Your task to perform on an android device: turn on priority inbox in the gmail app Image 0: 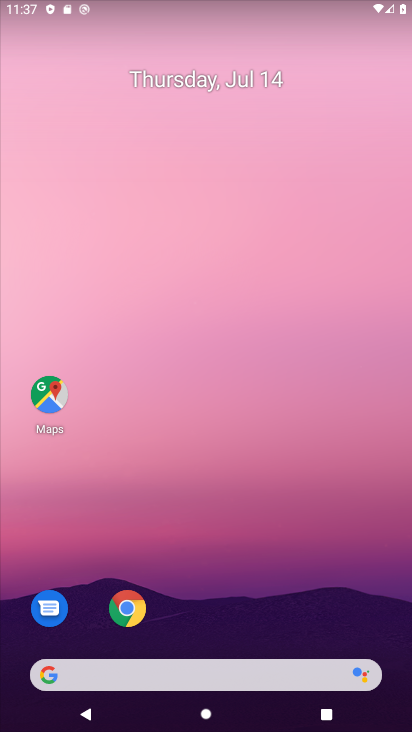
Step 0: drag from (205, 420) to (236, 112)
Your task to perform on an android device: turn on priority inbox in the gmail app Image 1: 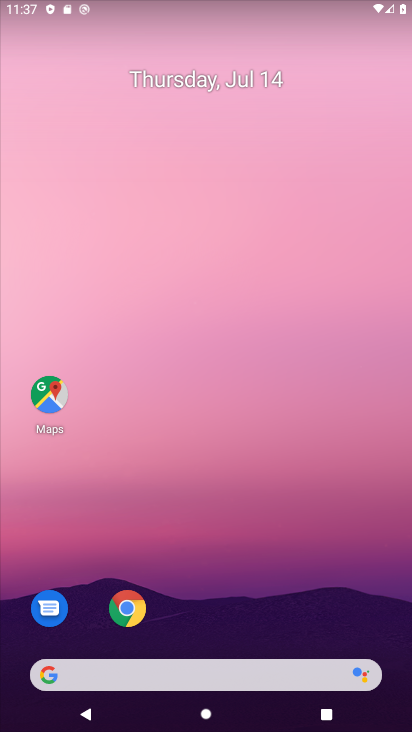
Step 1: drag from (163, 670) to (157, 29)
Your task to perform on an android device: turn on priority inbox in the gmail app Image 2: 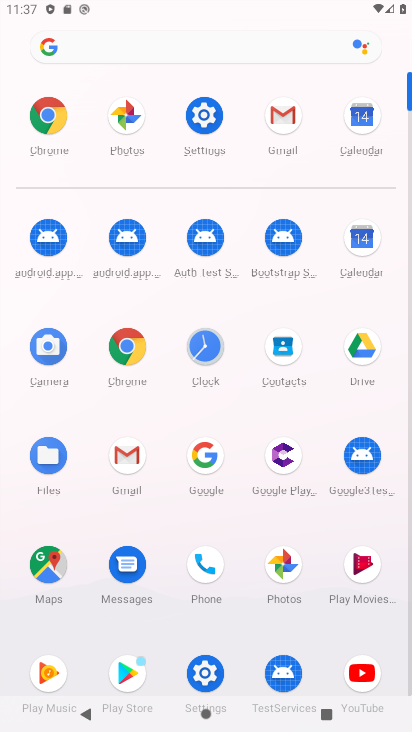
Step 2: click (130, 458)
Your task to perform on an android device: turn on priority inbox in the gmail app Image 3: 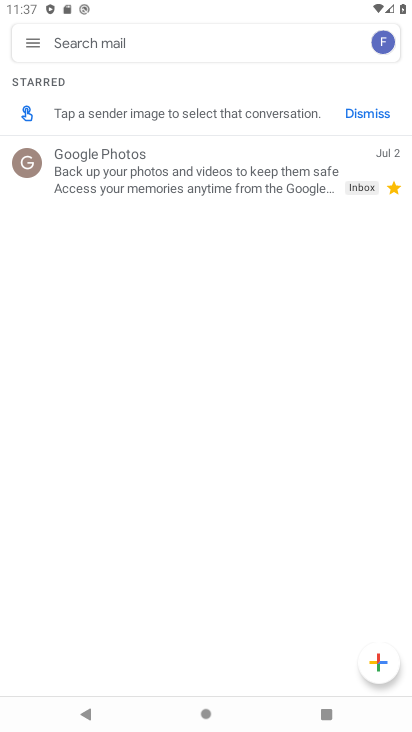
Step 3: click (24, 31)
Your task to perform on an android device: turn on priority inbox in the gmail app Image 4: 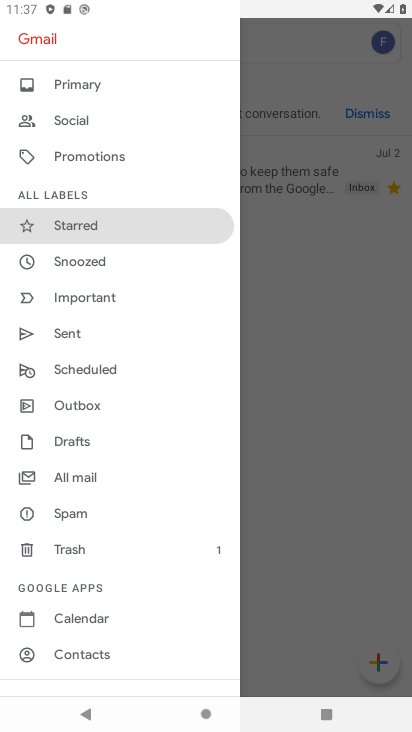
Step 4: drag from (106, 625) to (102, 369)
Your task to perform on an android device: turn on priority inbox in the gmail app Image 5: 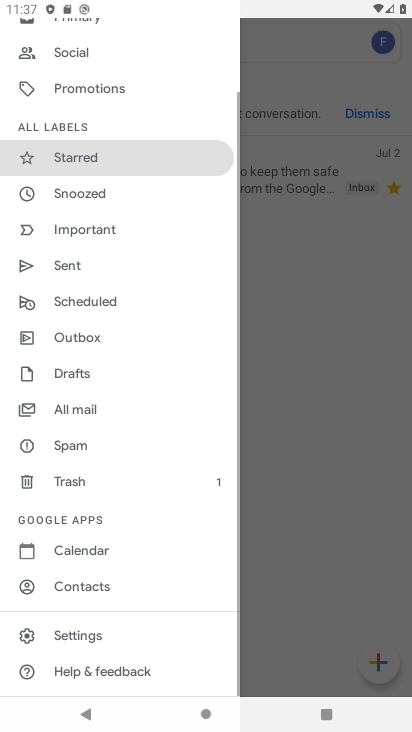
Step 5: click (99, 638)
Your task to perform on an android device: turn on priority inbox in the gmail app Image 6: 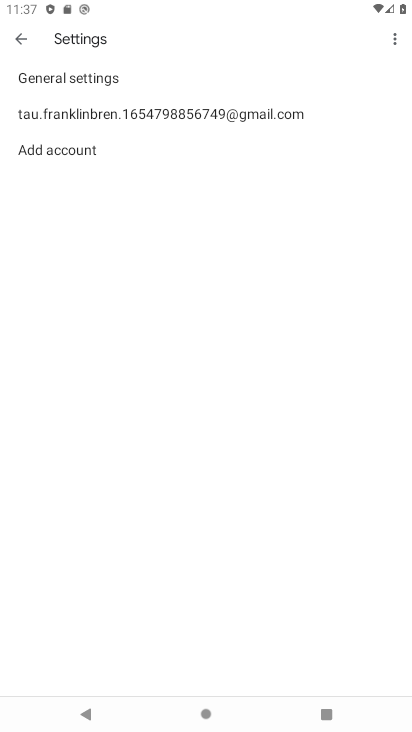
Step 6: click (96, 113)
Your task to perform on an android device: turn on priority inbox in the gmail app Image 7: 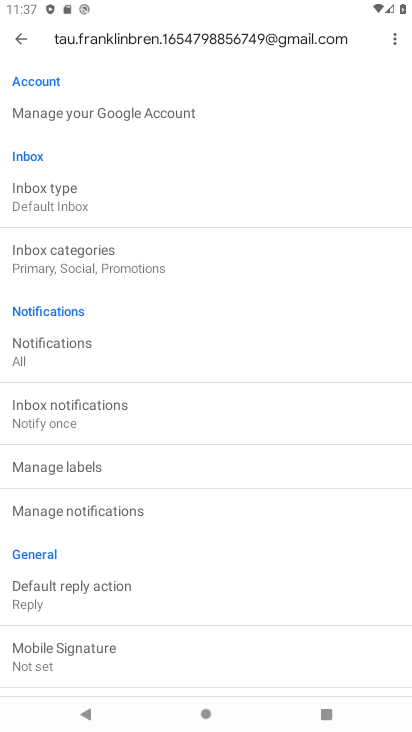
Step 7: click (80, 214)
Your task to perform on an android device: turn on priority inbox in the gmail app Image 8: 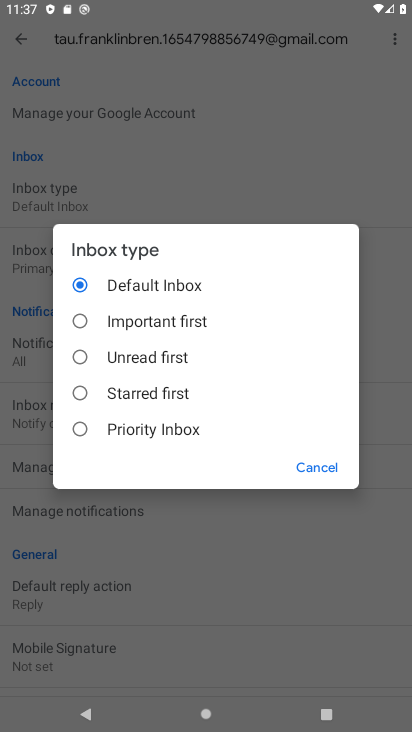
Step 8: click (115, 429)
Your task to perform on an android device: turn on priority inbox in the gmail app Image 9: 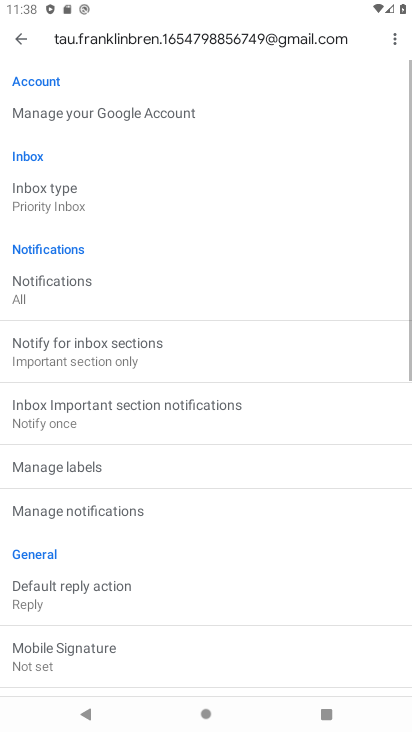
Step 9: task complete